Your task to perform on an android device: Turn on the flashlight Image 0: 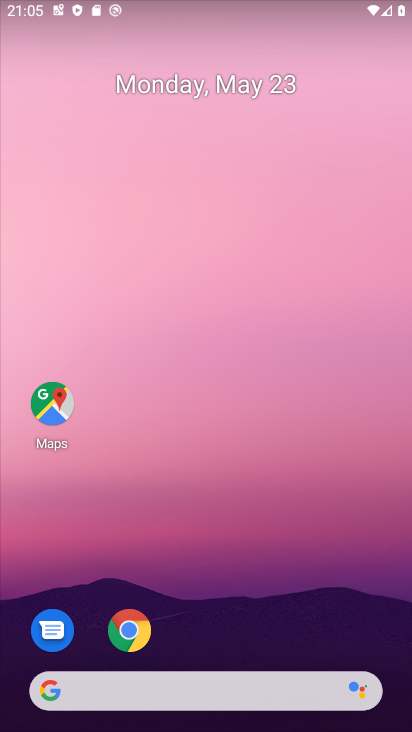
Step 0: drag from (216, 5) to (215, 393)
Your task to perform on an android device: Turn on the flashlight Image 1: 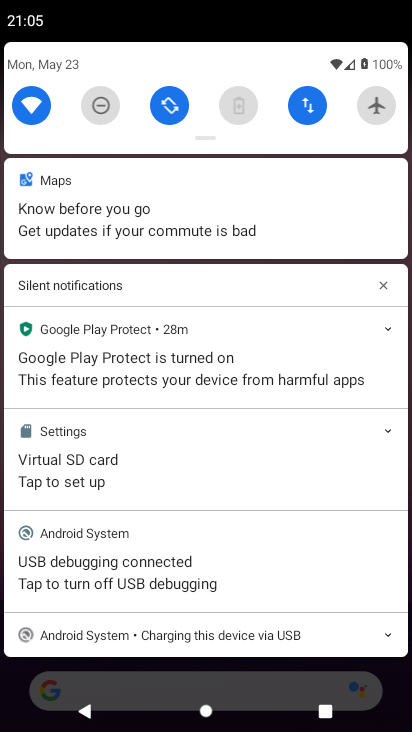
Step 1: drag from (219, 106) to (219, 435)
Your task to perform on an android device: Turn on the flashlight Image 2: 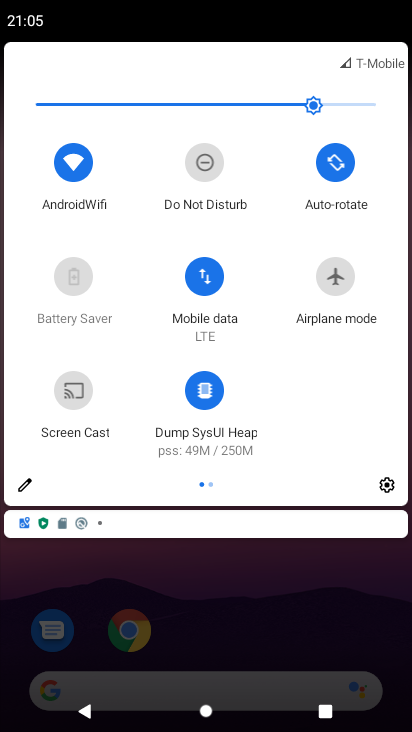
Step 2: drag from (345, 278) to (39, 293)
Your task to perform on an android device: Turn on the flashlight Image 3: 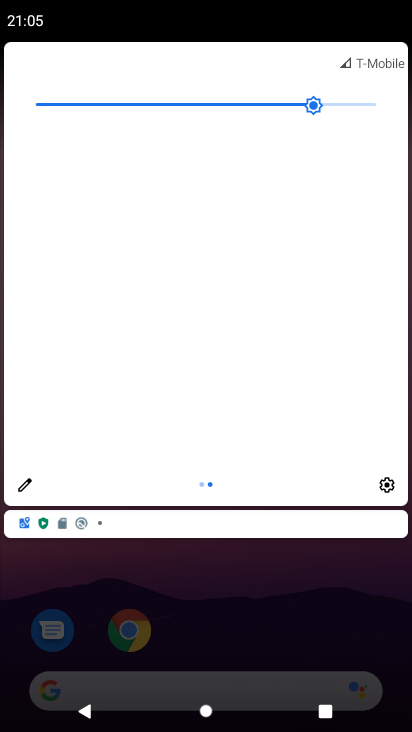
Step 3: click (26, 482)
Your task to perform on an android device: Turn on the flashlight Image 4: 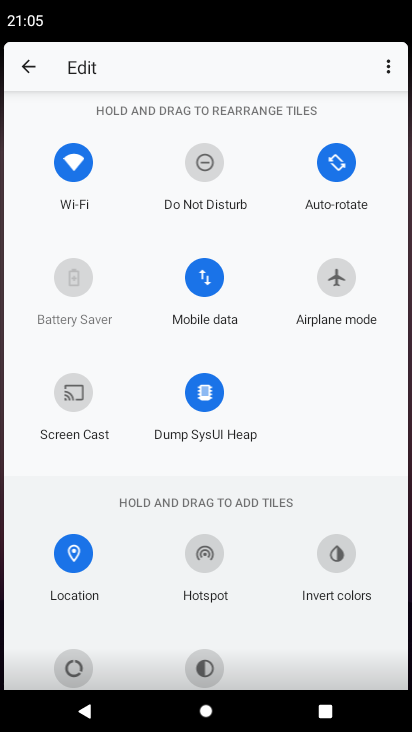
Step 4: task complete